Your task to perform on an android device: toggle notification dots Image 0: 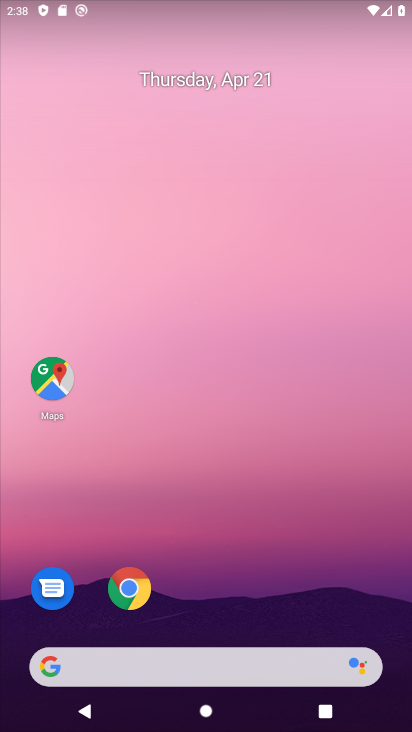
Step 0: drag from (227, 575) to (248, 127)
Your task to perform on an android device: toggle notification dots Image 1: 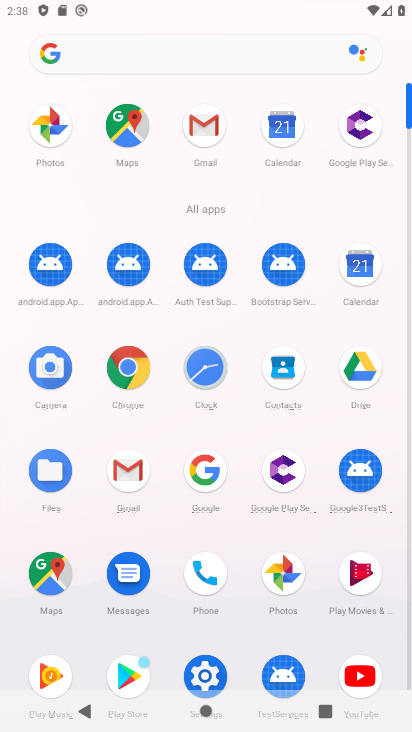
Step 1: drag from (240, 162) to (261, 11)
Your task to perform on an android device: toggle notification dots Image 2: 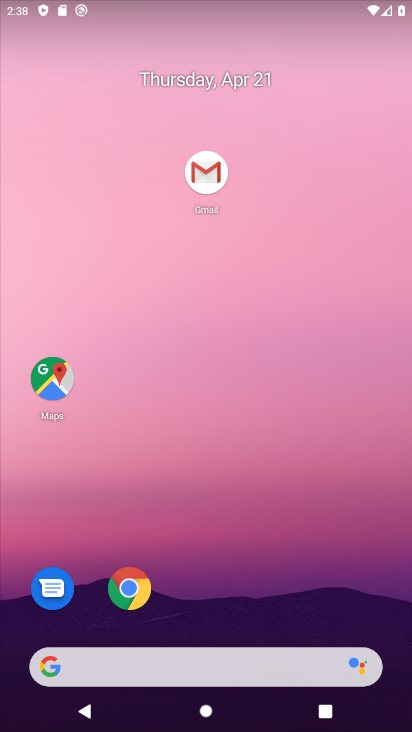
Step 2: drag from (266, 514) to (289, 9)
Your task to perform on an android device: toggle notification dots Image 3: 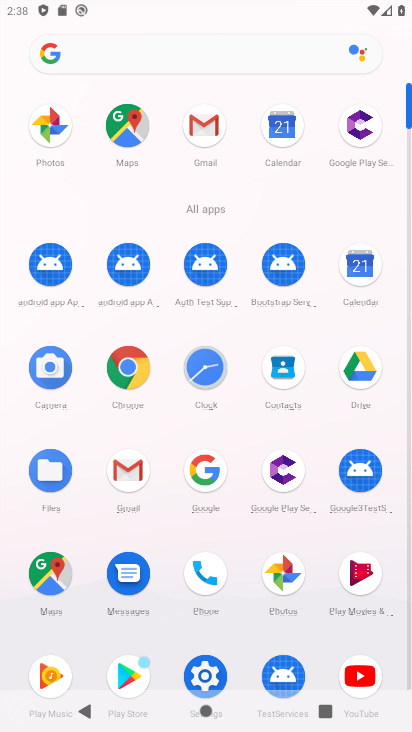
Step 3: drag from (243, 212) to (249, 22)
Your task to perform on an android device: toggle notification dots Image 4: 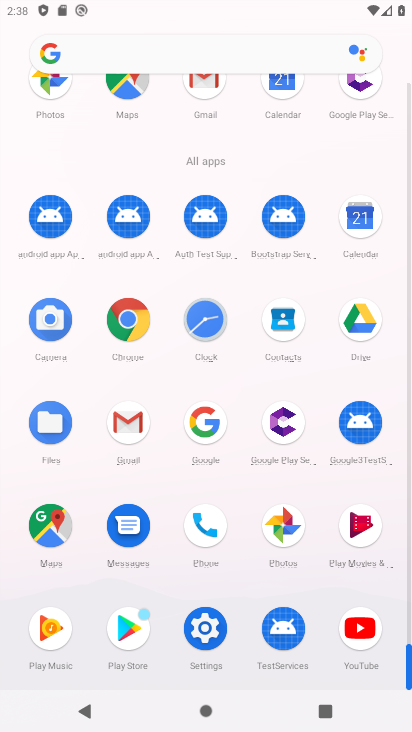
Step 4: click (202, 638)
Your task to perform on an android device: toggle notification dots Image 5: 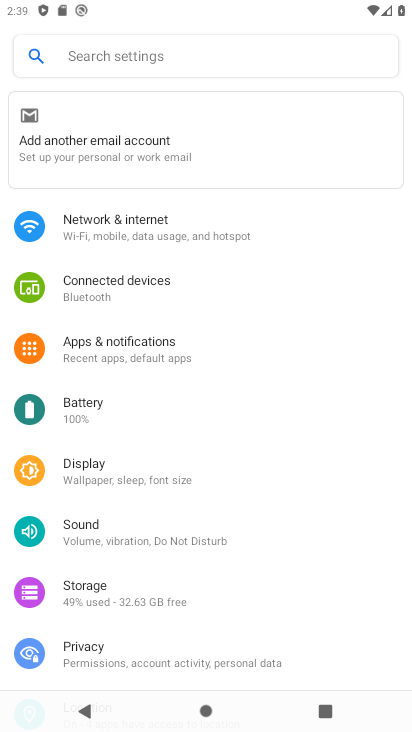
Step 5: click (126, 337)
Your task to perform on an android device: toggle notification dots Image 6: 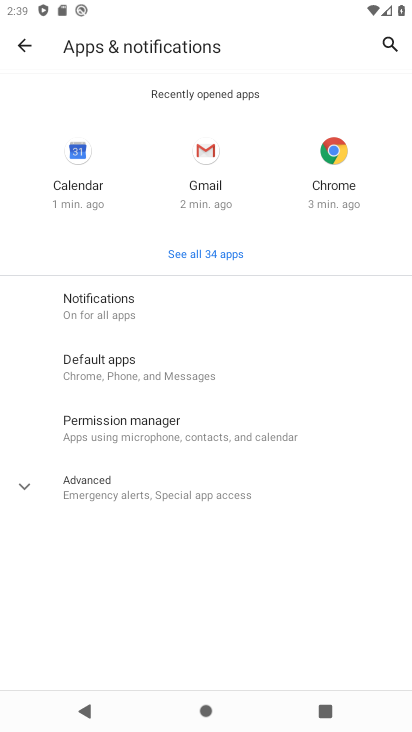
Step 6: click (193, 493)
Your task to perform on an android device: toggle notification dots Image 7: 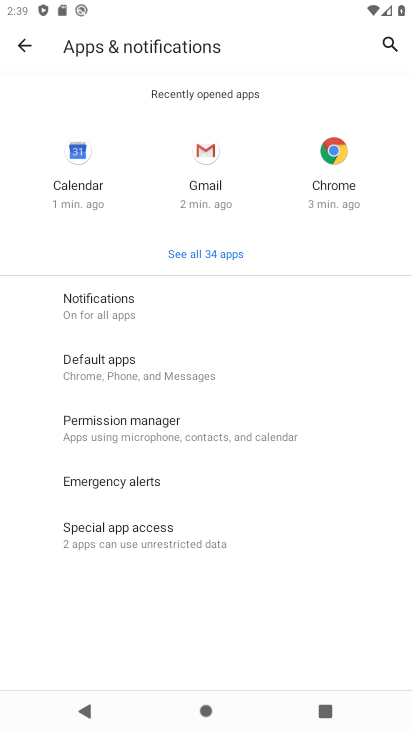
Step 7: drag from (323, 606) to (338, 428)
Your task to perform on an android device: toggle notification dots Image 8: 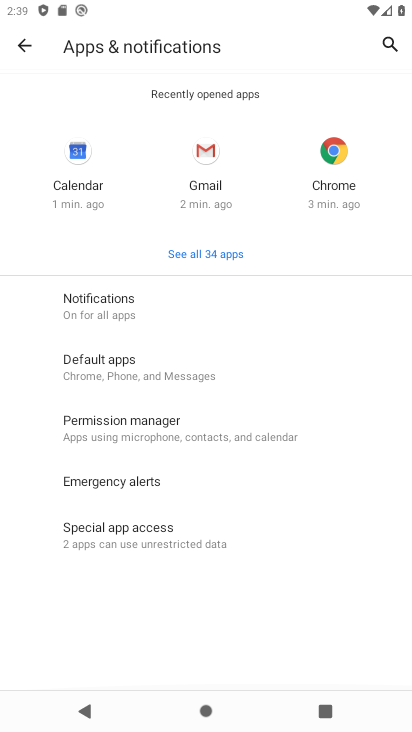
Step 8: click (92, 305)
Your task to perform on an android device: toggle notification dots Image 9: 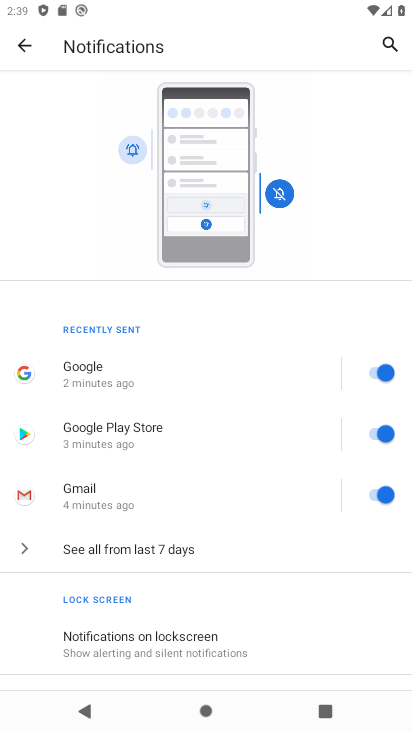
Step 9: drag from (263, 616) to (320, 251)
Your task to perform on an android device: toggle notification dots Image 10: 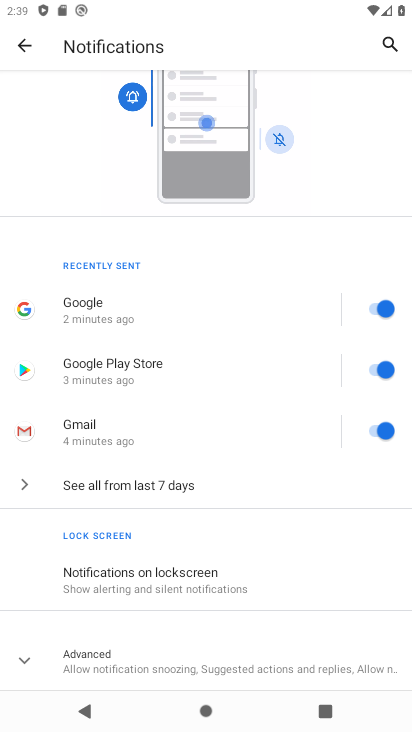
Step 10: click (100, 664)
Your task to perform on an android device: toggle notification dots Image 11: 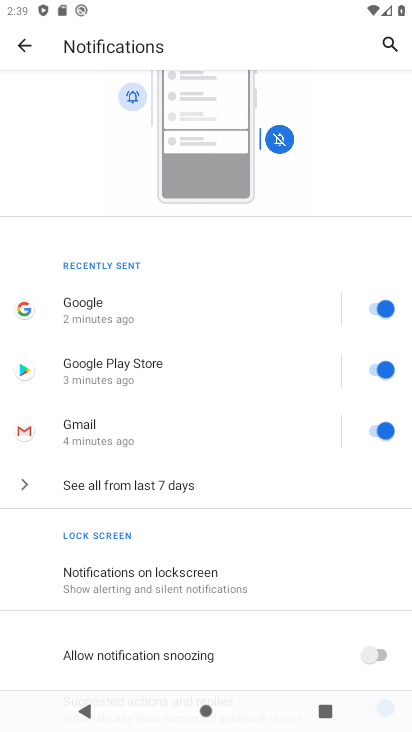
Step 11: drag from (303, 634) to (372, 286)
Your task to perform on an android device: toggle notification dots Image 12: 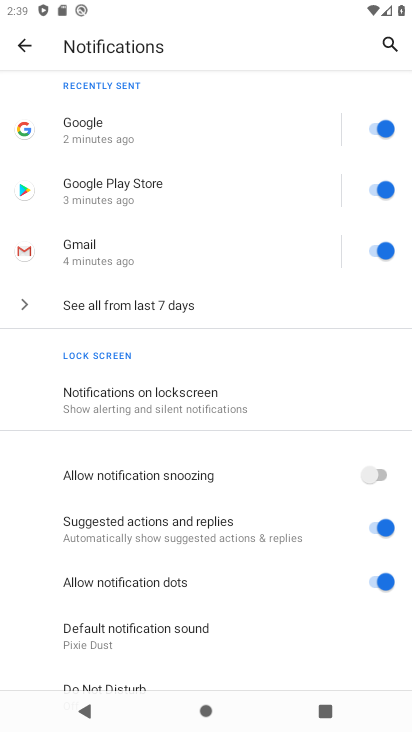
Step 12: click (380, 580)
Your task to perform on an android device: toggle notification dots Image 13: 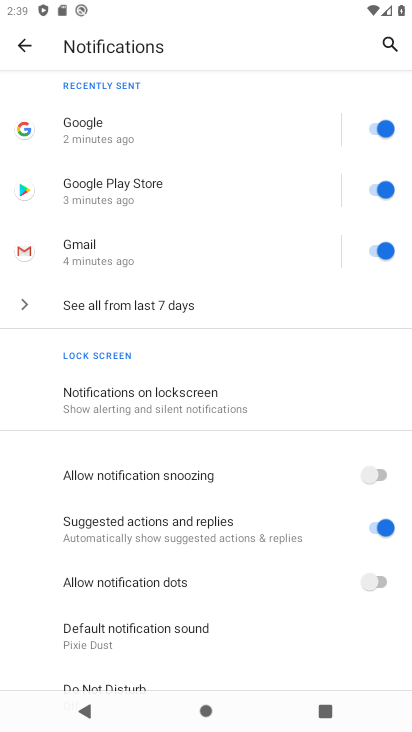
Step 13: task complete